Your task to perform on an android device: uninstall "Contacts" Image 0: 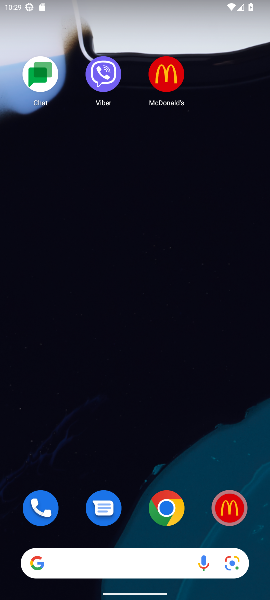
Step 0: drag from (147, 553) to (155, 8)
Your task to perform on an android device: uninstall "Contacts" Image 1: 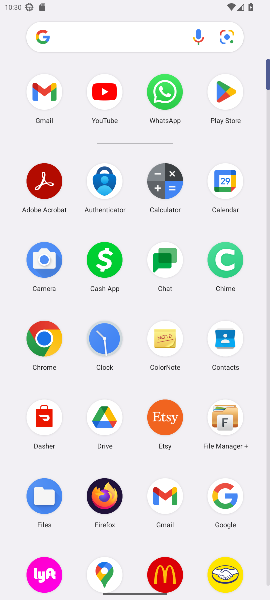
Step 1: drag from (189, 507) to (190, 136)
Your task to perform on an android device: uninstall "Contacts" Image 2: 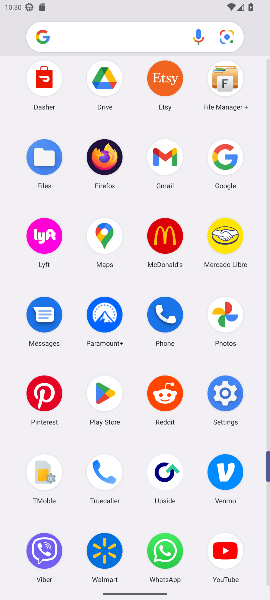
Step 2: click (98, 395)
Your task to perform on an android device: uninstall "Contacts" Image 3: 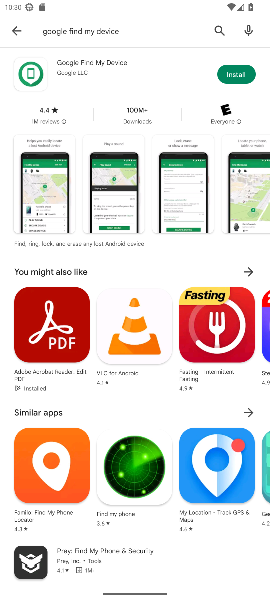
Step 3: click (220, 31)
Your task to perform on an android device: uninstall "Contacts" Image 4: 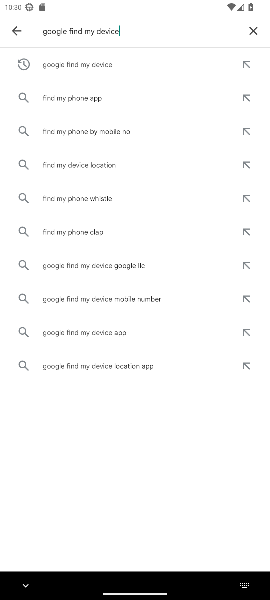
Step 4: click (251, 29)
Your task to perform on an android device: uninstall "Contacts" Image 5: 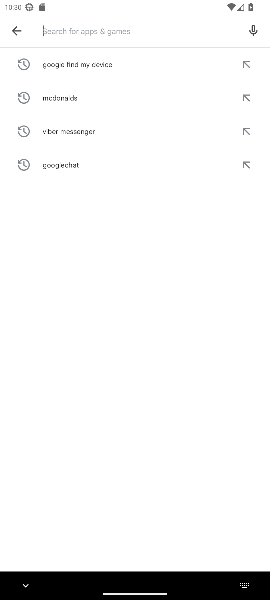
Step 5: type "contacts"
Your task to perform on an android device: uninstall "Contacts" Image 6: 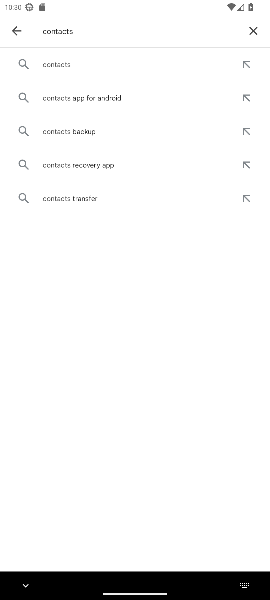
Step 6: click (58, 60)
Your task to perform on an android device: uninstall "Contacts" Image 7: 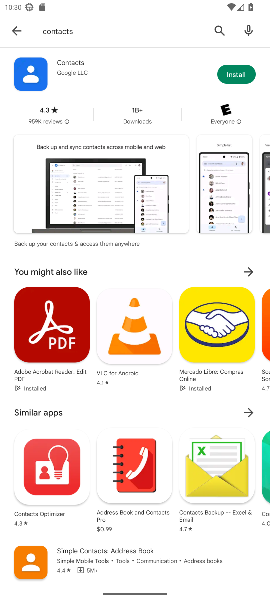
Step 7: task complete